Your task to perform on an android device: Search for Mexican restaurants on Maps Image 0: 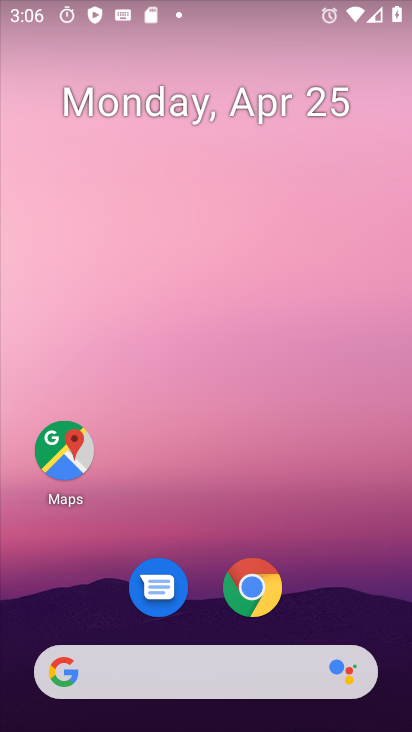
Step 0: click (72, 458)
Your task to perform on an android device: Search for Mexican restaurants on Maps Image 1: 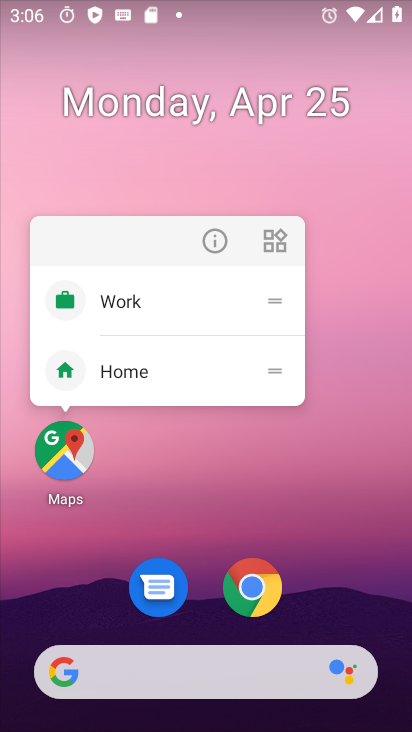
Step 1: drag from (363, 576) to (381, 83)
Your task to perform on an android device: Search for Mexican restaurants on Maps Image 2: 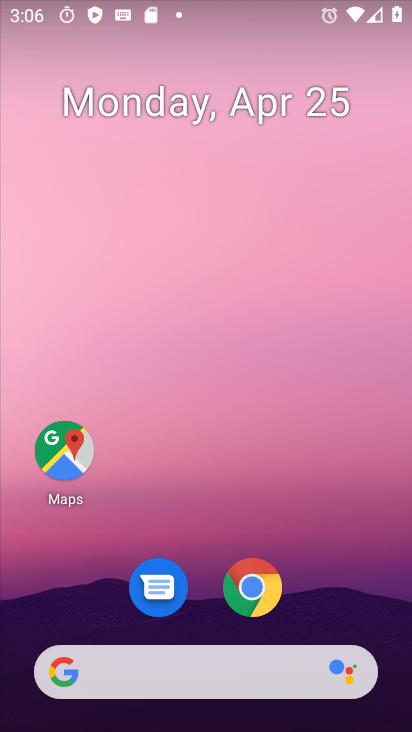
Step 2: drag from (300, 412) to (212, 83)
Your task to perform on an android device: Search for Mexican restaurants on Maps Image 3: 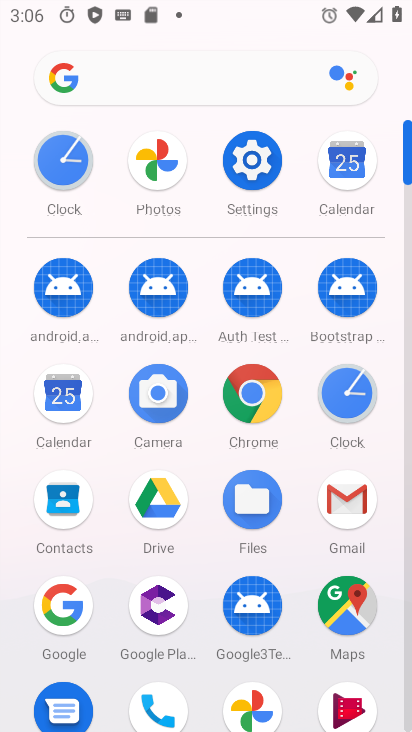
Step 3: click (350, 597)
Your task to perform on an android device: Search for Mexican restaurants on Maps Image 4: 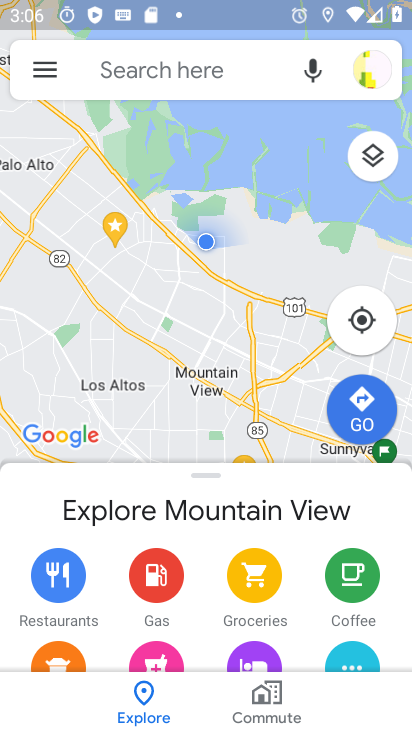
Step 4: click (204, 56)
Your task to perform on an android device: Search for Mexican restaurants on Maps Image 5: 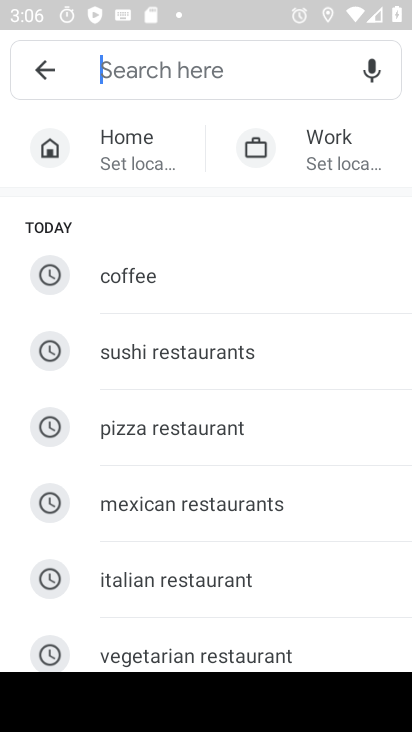
Step 5: click (287, 501)
Your task to perform on an android device: Search for Mexican restaurants on Maps Image 6: 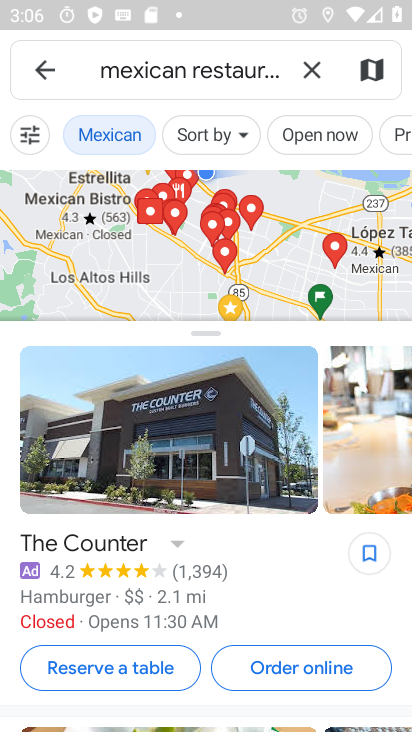
Step 6: task complete